Your task to perform on an android device: allow notifications from all sites in the chrome app Image 0: 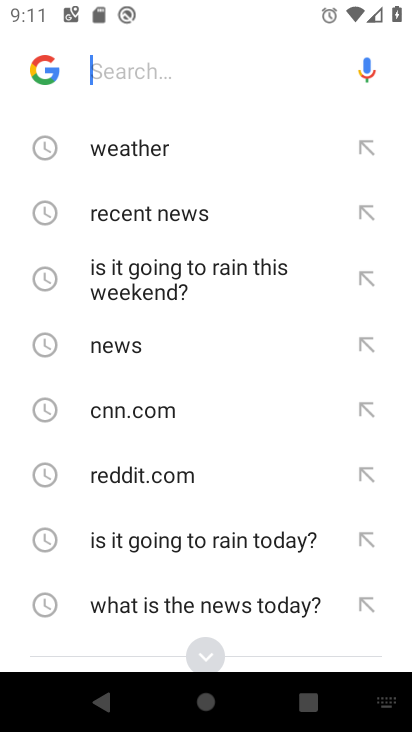
Step 0: press home button
Your task to perform on an android device: allow notifications from all sites in the chrome app Image 1: 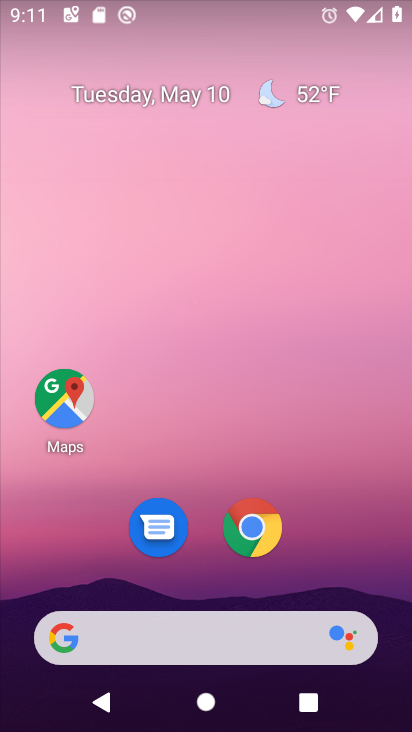
Step 1: click (259, 523)
Your task to perform on an android device: allow notifications from all sites in the chrome app Image 2: 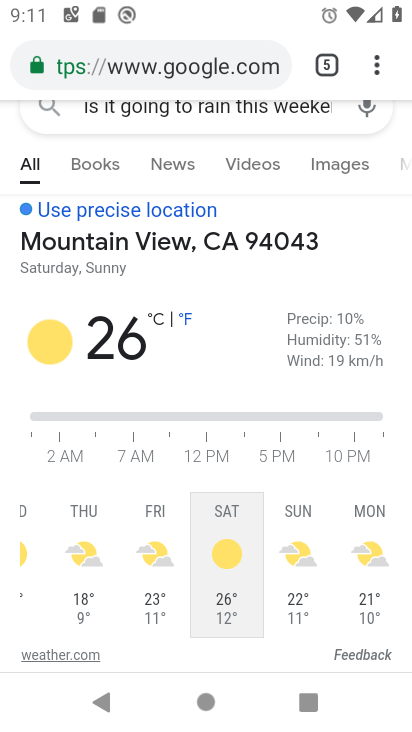
Step 2: click (374, 69)
Your task to perform on an android device: allow notifications from all sites in the chrome app Image 3: 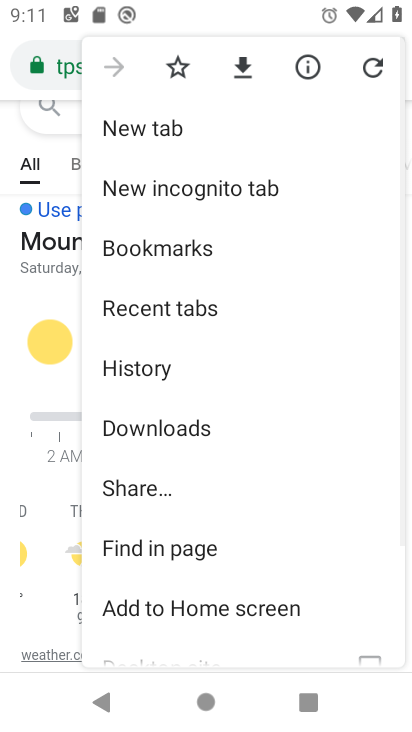
Step 3: drag from (174, 521) to (180, 197)
Your task to perform on an android device: allow notifications from all sites in the chrome app Image 4: 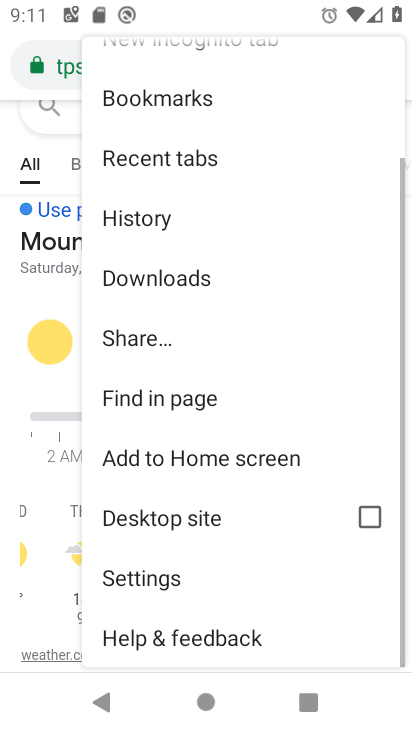
Step 4: click (139, 575)
Your task to perform on an android device: allow notifications from all sites in the chrome app Image 5: 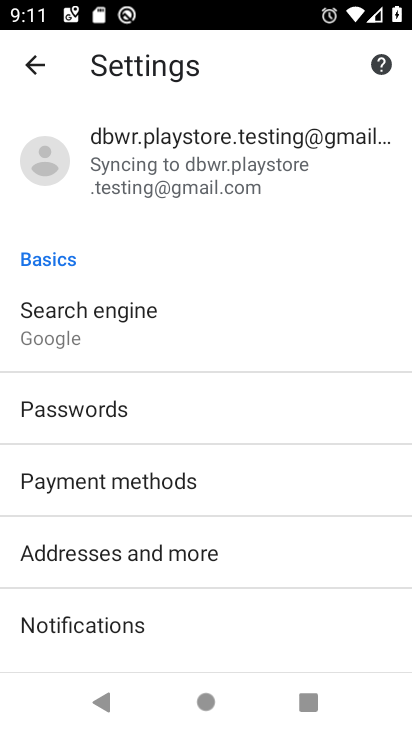
Step 5: drag from (103, 628) to (119, 461)
Your task to perform on an android device: allow notifications from all sites in the chrome app Image 6: 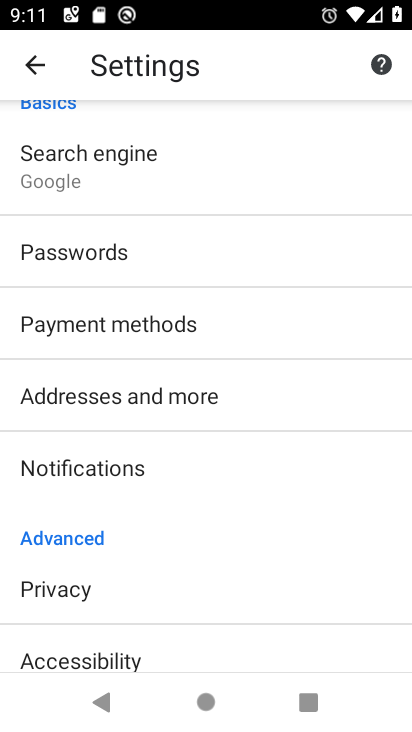
Step 6: click (71, 463)
Your task to perform on an android device: allow notifications from all sites in the chrome app Image 7: 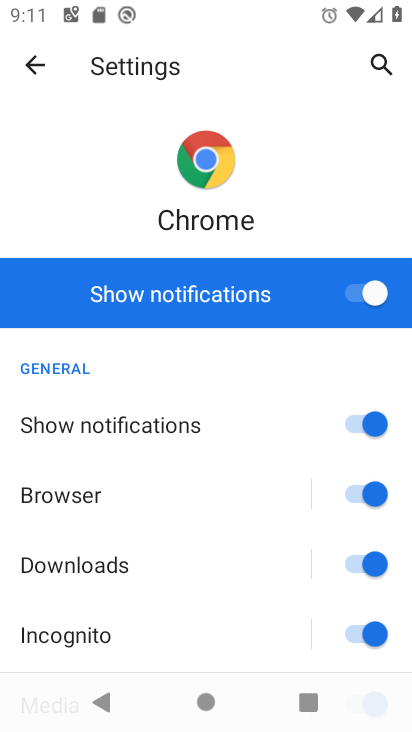
Step 7: task complete